Your task to perform on an android device: toggle airplane mode Image 0: 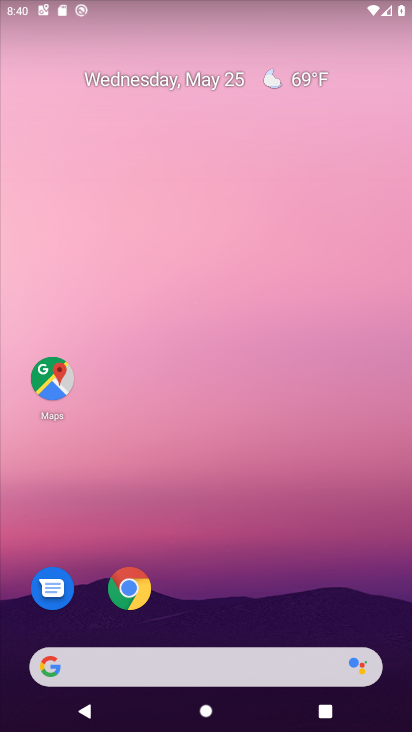
Step 0: drag from (313, 590) to (314, 345)
Your task to perform on an android device: toggle airplane mode Image 1: 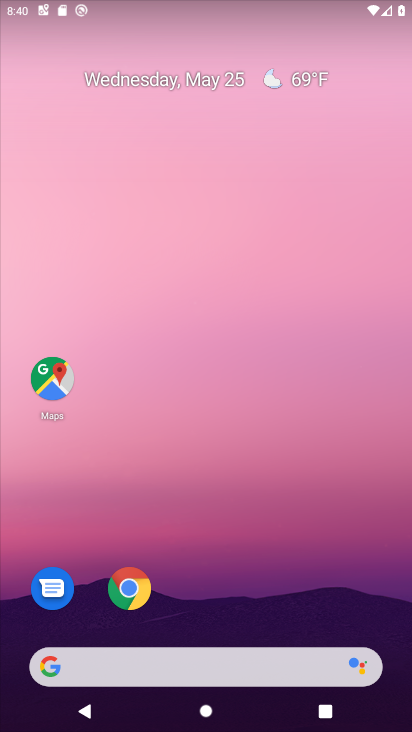
Step 1: drag from (359, 592) to (378, 167)
Your task to perform on an android device: toggle airplane mode Image 2: 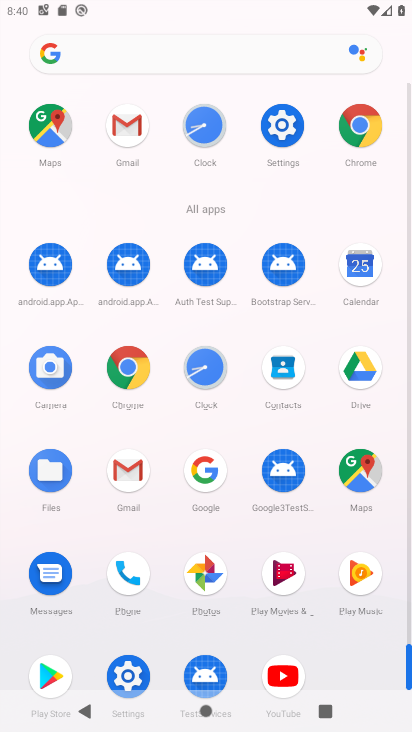
Step 2: click (287, 146)
Your task to perform on an android device: toggle airplane mode Image 3: 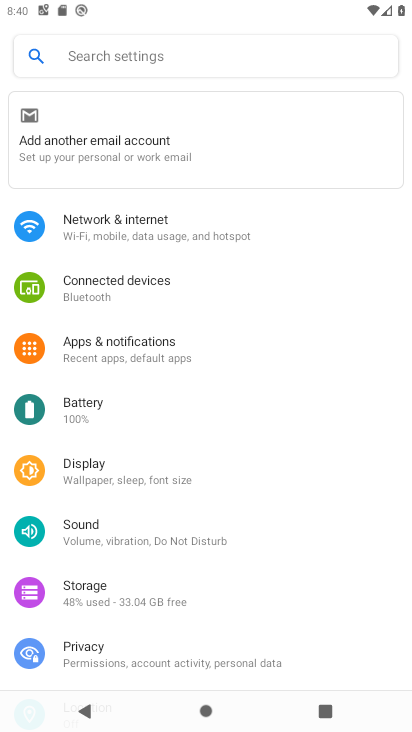
Step 3: click (234, 229)
Your task to perform on an android device: toggle airplane mode Image 4: 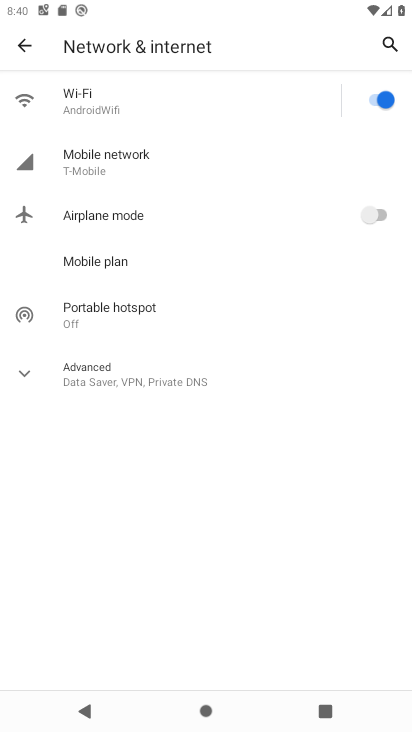
Step 4: click (366, 225)
Your task to perform on an android device: toggle airplane mode Image 5: 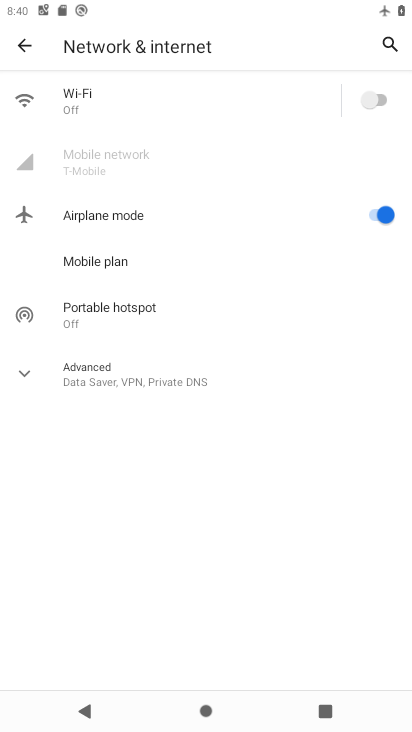
Step 5: task complete